Your task to perform on an android device: Open Google Chrome and click the shortcut for Amazon.com Image 0: 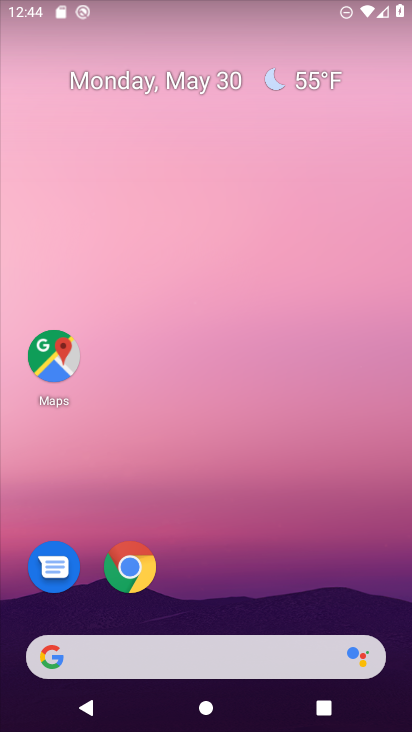
Step 0: click (132, 564)
Your task to perform on an android device: Open Google Chrome and click the shortcut for Amazon.com Image 1: 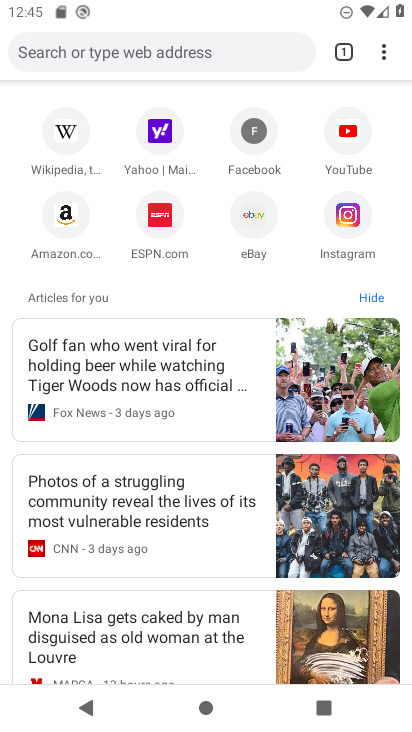
Step 1: click (59, 216)
Your task to perform on an android device: Open Google Chrome and click the shortcut for Amazon.com Image 2: 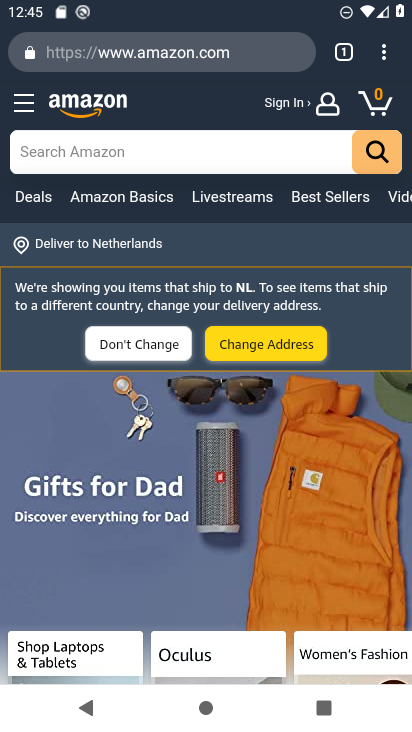
Step 2: task complete